Your task to perform on an android device: open a new tab in the chrome app Image 0: 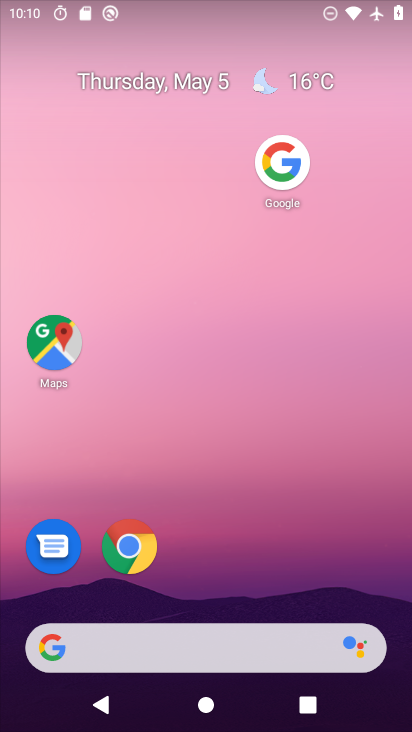
Step 0: drag from (182, 641) to (321, 178)
Your task to perform on an android device: open a new tab in the chrome app Image 1: 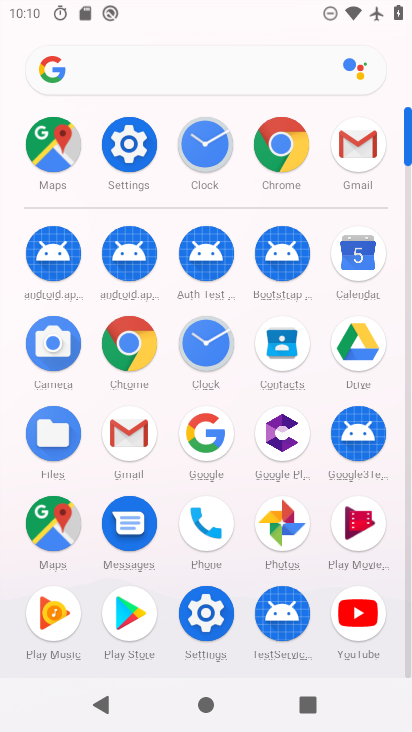
Step 1: click (283, 145)
Your task to perform on an android device: open a new tab in the chrome app Image 2: 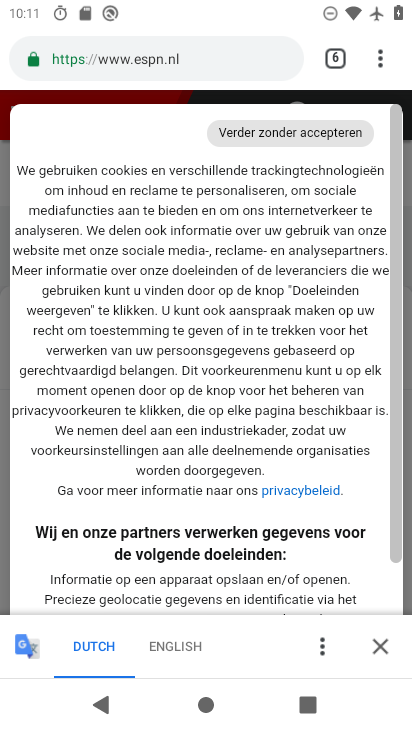
Step 2: drag from (376, 59) to (194, 115)
Your task to perform on an android device: open a new tab in the chrome app Image 3: 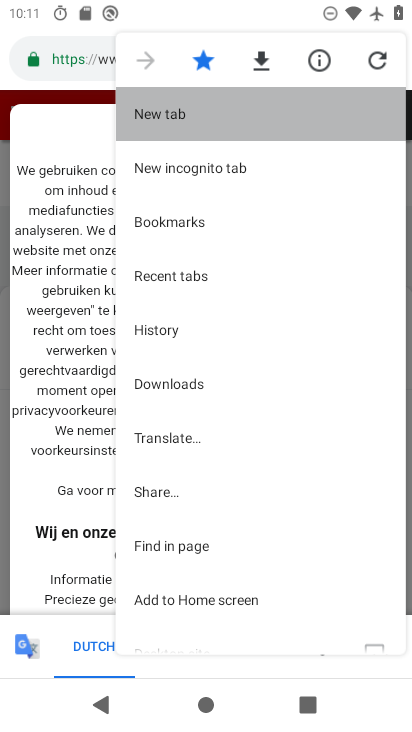
Step 3: click (190, 116)
Your task to perform on an android device: open a new tab in the chrome app Image 4: 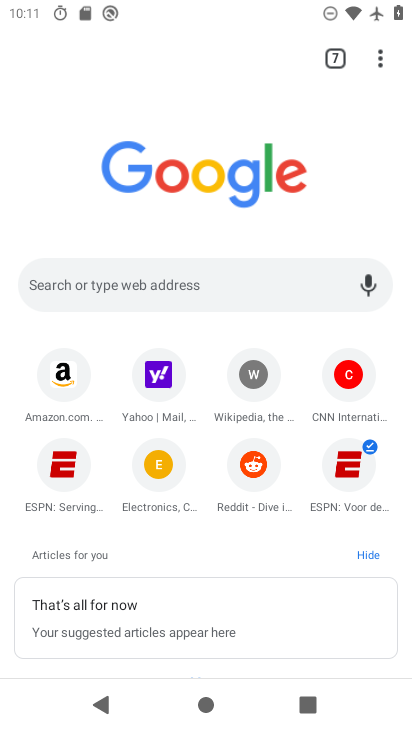
Step 4: task complete